Your task to perform on an android device: Open eBay Image 0: 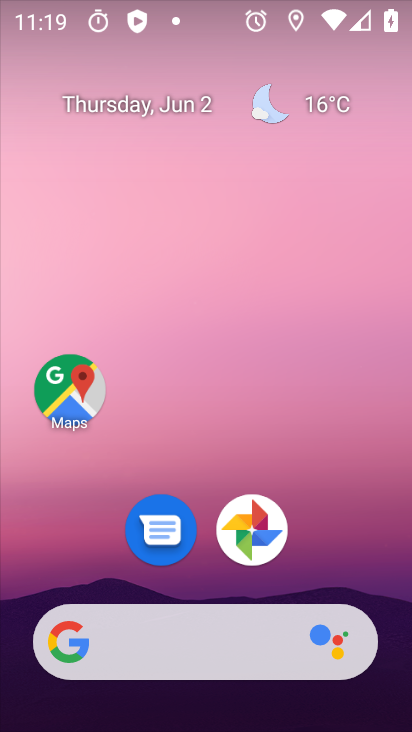
Step 0: drag from (250, 637) to (86, 325)
Your task to perform on an android device: Open eBay Image 1: 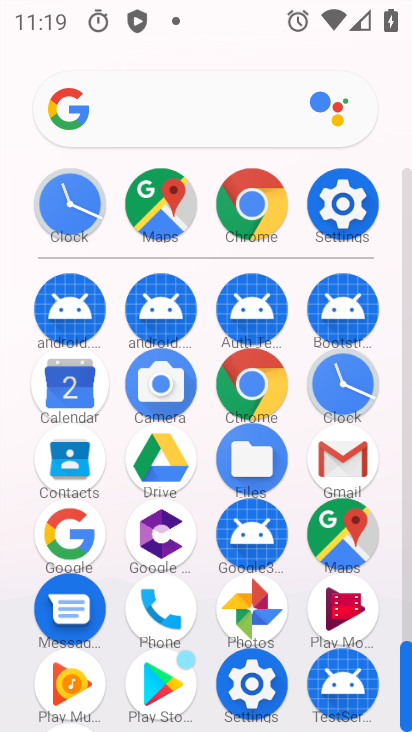
Step 1: click (251, 201)
Your task to perform on an android device: Open eBay Image 2: 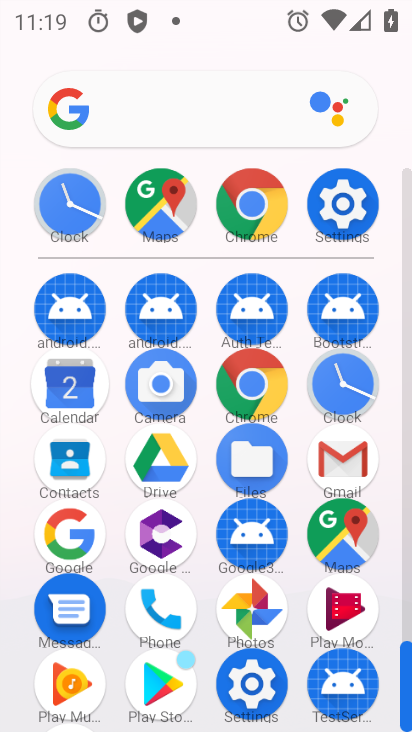
Step 2: click (252, 200)
Your task to perform on an android device: Open eBay Image 3: 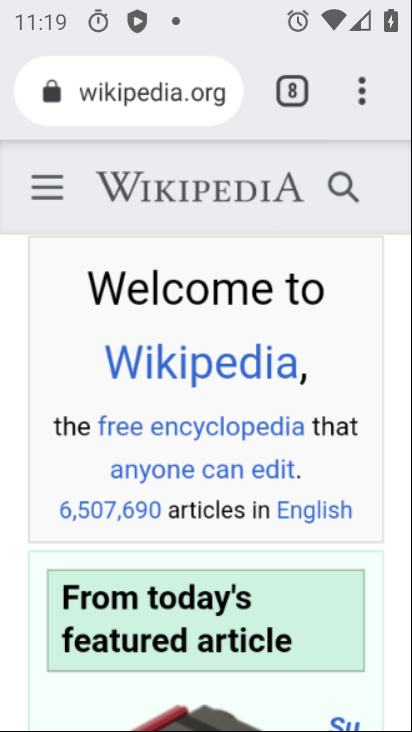
Step 3: click (250, 212)
Your task to perform on an android device: Open eBay Image 4: 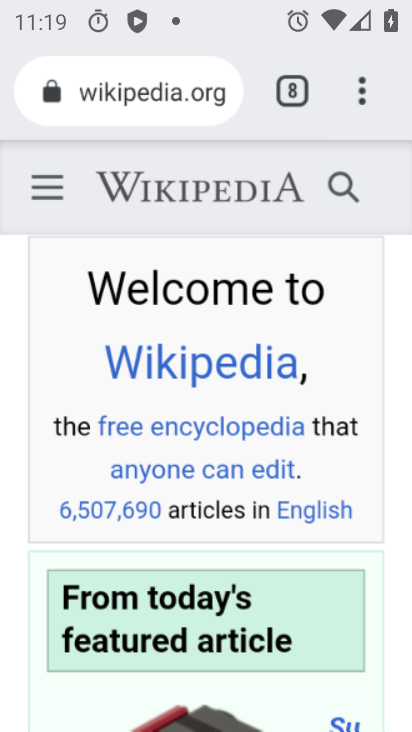
Step 4: click (250, 212)
Your task to perform on an android device: Open eBay Image 5: 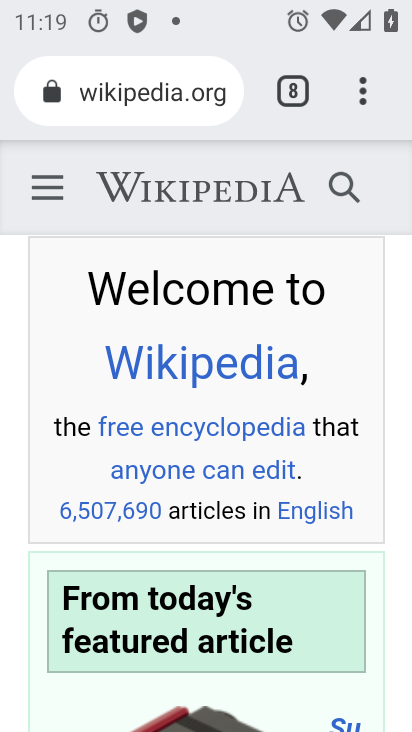
Step 5: click (358, 97)
Your task to perform on an android device: Open eBay Image 6: 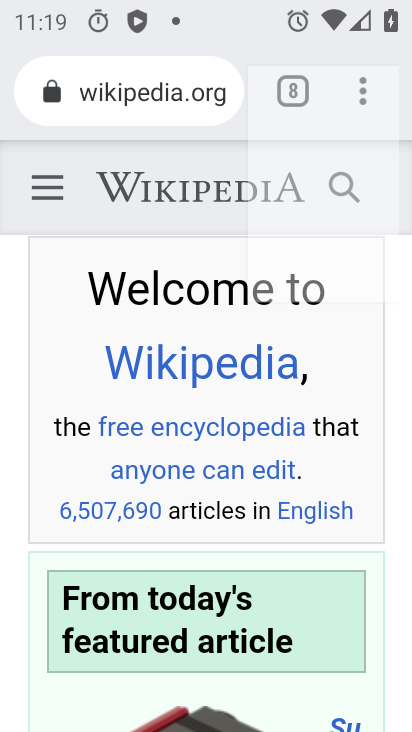
Step 6: click (358, 97)
Your task to perform on an android device: Open eBay Image 7: 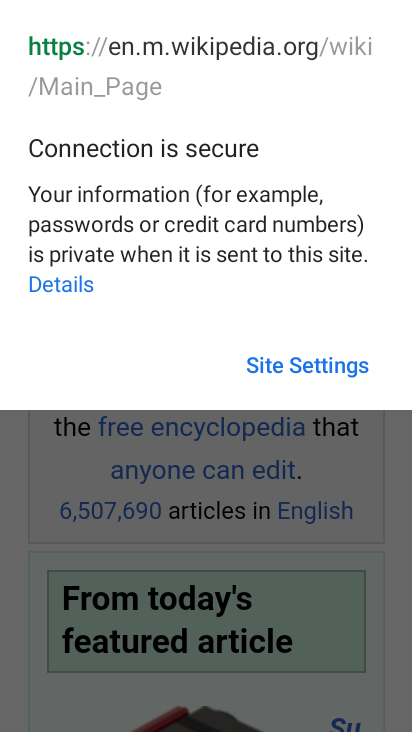
Step 7: click (369, 468)
Your task to perform on an android device: Open eBay Image 8: 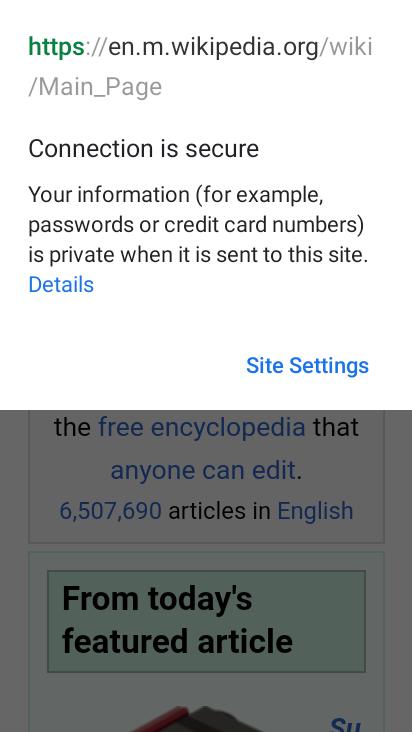
Step 8: click (380, 454)
Your task to perform on an android device: Open eBay Image 9: 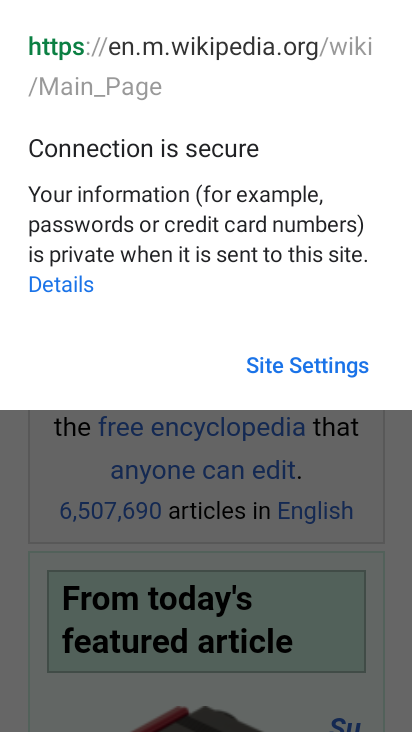
Step 9: click (383, 454)
Your task to perform on an android device: Open eBay Image 10: 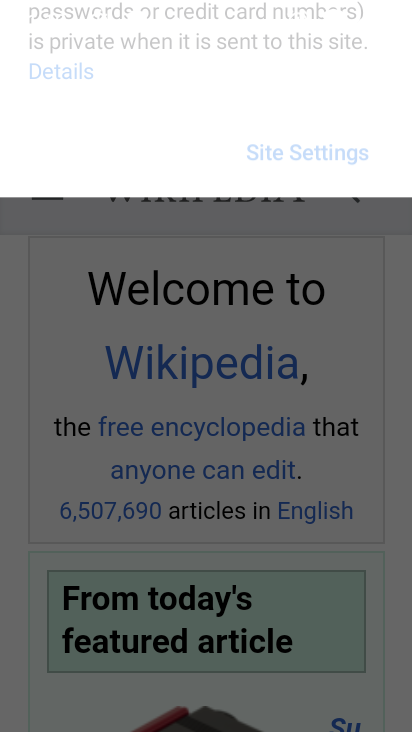
Step 10: click (384, 455)
Your task to perform on an android device: Open eBay Image 11: 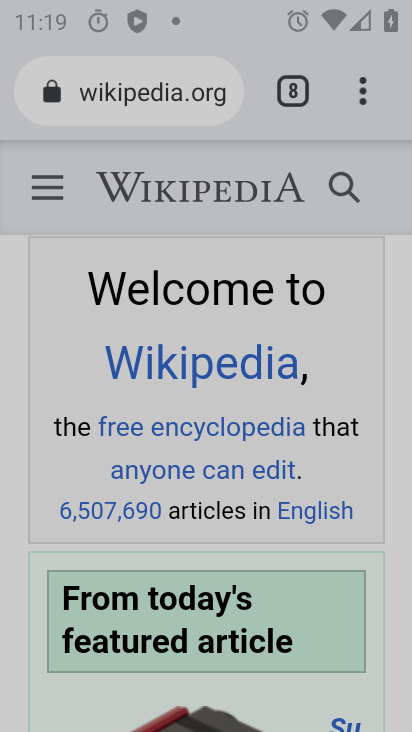
Step 11: click (384, 455)
Your task to perform on an android device: Open eBay Image 12: 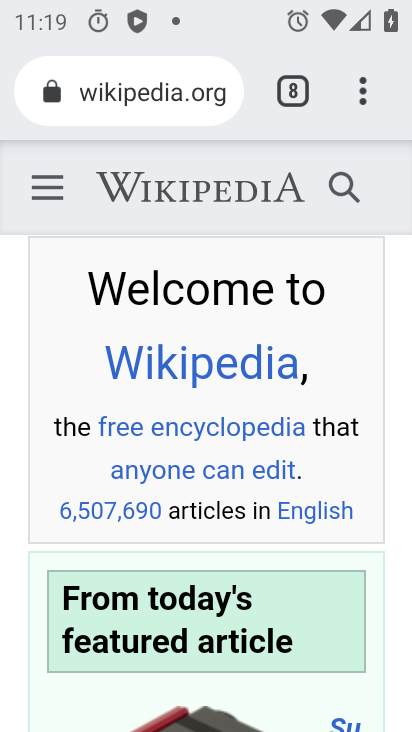
Step 12: drag from (359, 92) to (54, 211)
Your task to perform on an android device: Open eBay Image 13: 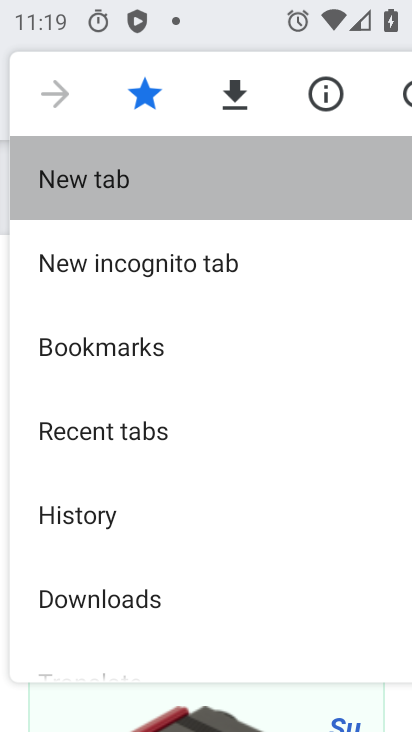
Step 13: click (54, 209)
Your task to perform on an android device: Open eBay Image 14: 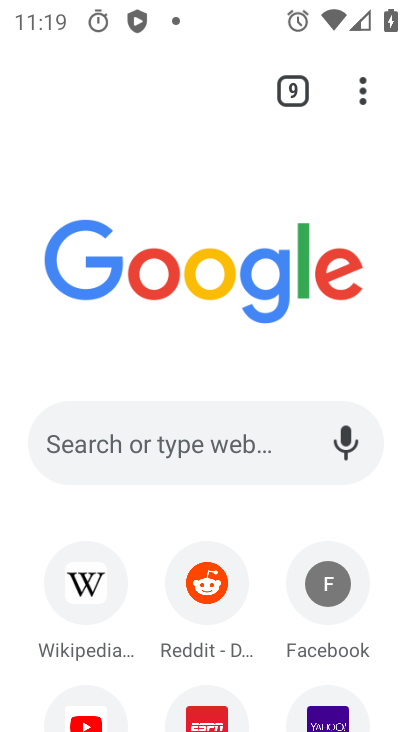
Step 14: drag from (212, 425) to (186, 238)
Your task to perform on an android device: Open eBay Image 15: 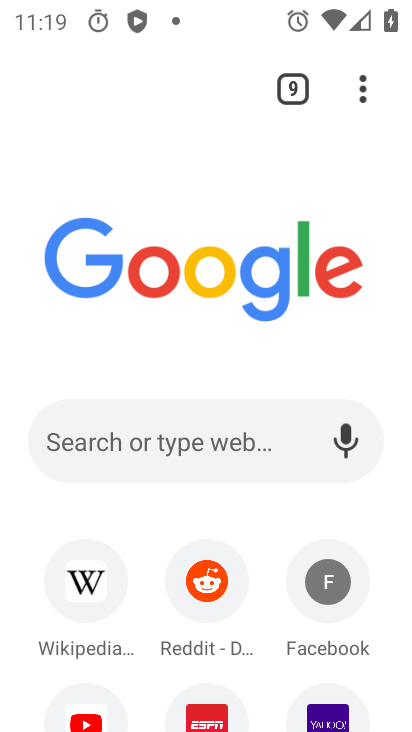
Step 15: drag from (252, 404) to (222, 194)
Your task to perform on an android device: Open eBay Image 16: 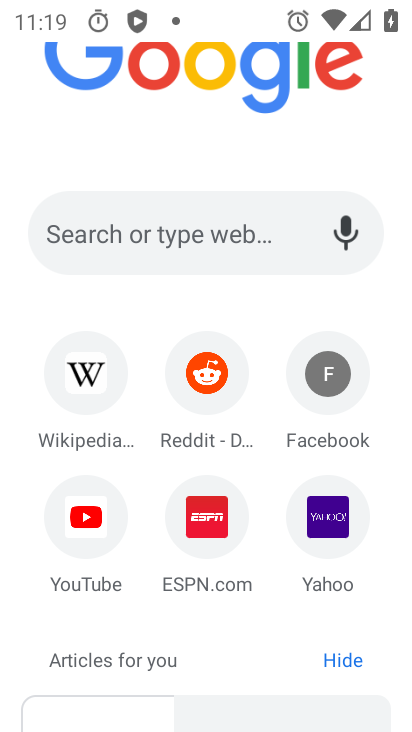
Step 16: drag from (260, 406) to (227, 101)
Your task to perform on an android device: Open eBay Image 17: 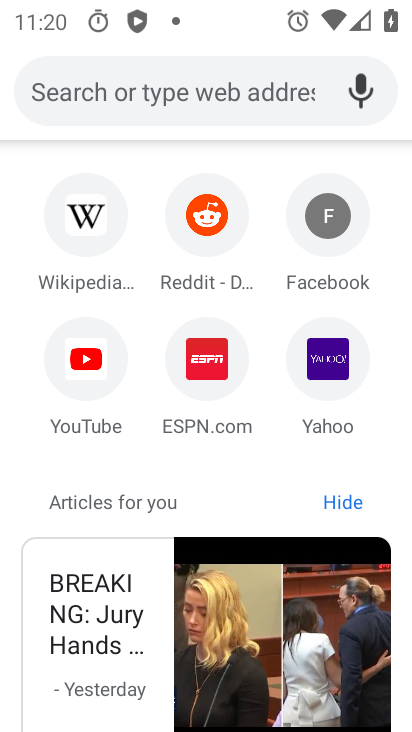
Step 17: drag from (166, 187) to (168, 526)
Your task to perform on an android device: Open eBay Image 18: 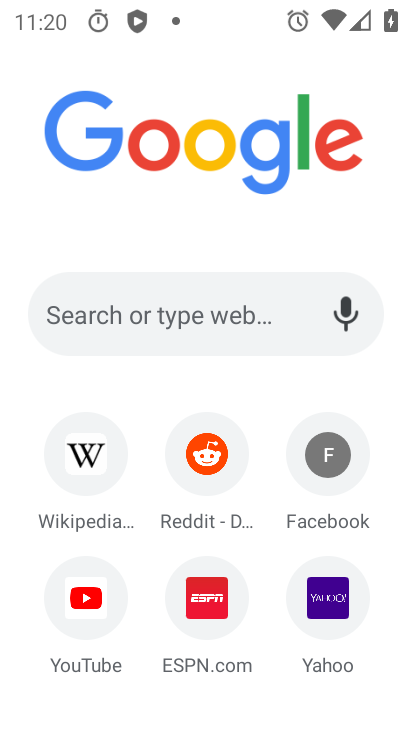
Step 18: click (54, 290)
Your task to perform on an android device: Open eBay Image 19: 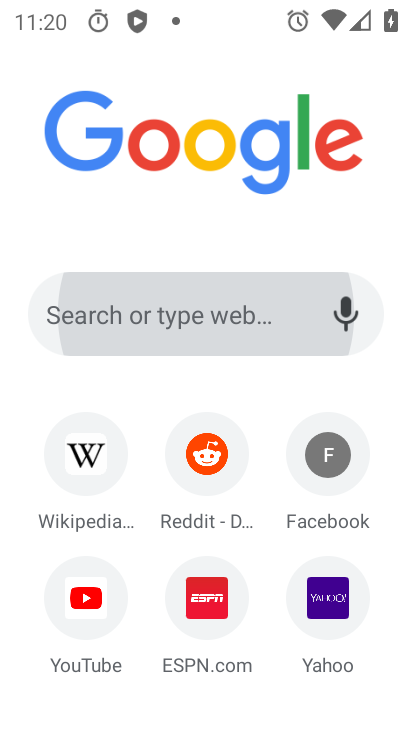
Step 19: click (80, 314)
Your task to perform on an android device: Open eBay Image 20: 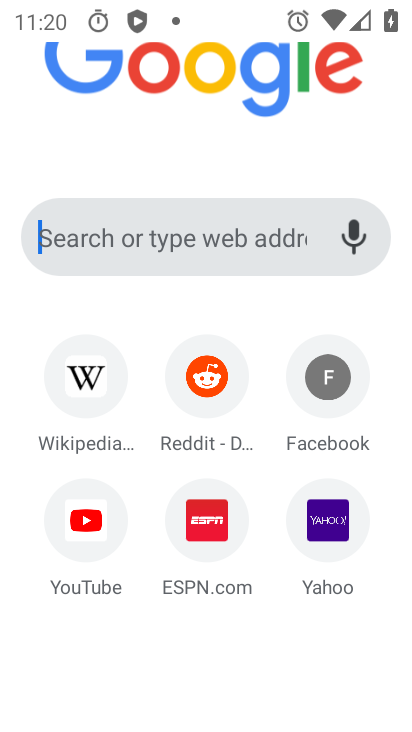
Step 20: click (80, 314)
Your task to perform on an android device: Open eBay Image 21: 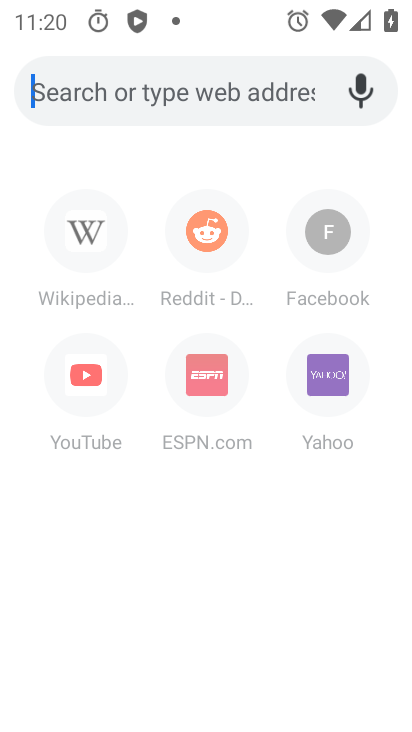
Step 21: click (80, 314)
Your task to perform on an android device: Open eBay Image 22: 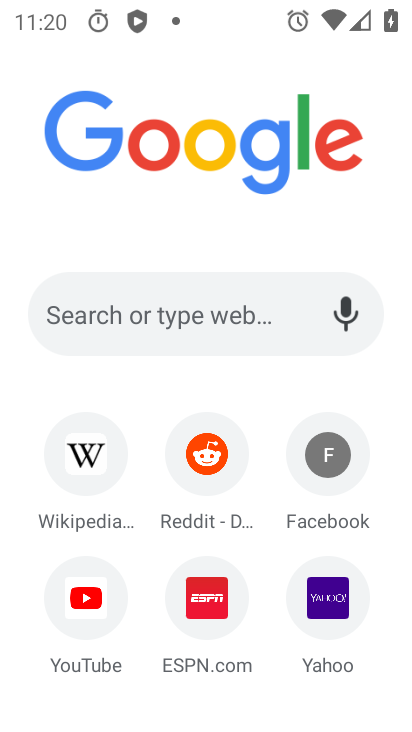
Step 22: type "ebay.com"
Your task to perform on an android device: Open eBay Image 23: 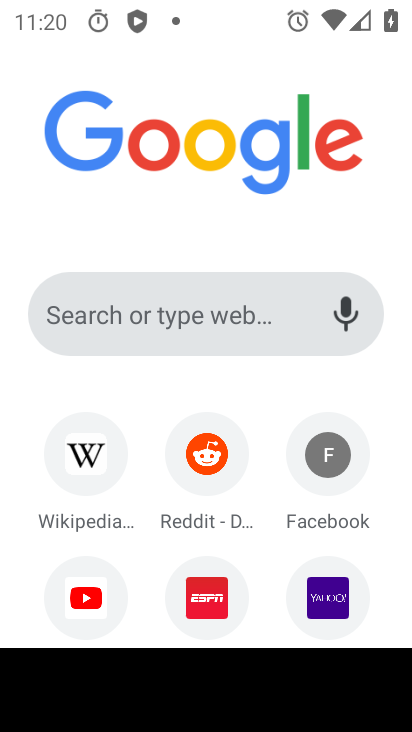
Step 23: click (95, 310)
Your task to perform on an android device: Open eBay Image 24: 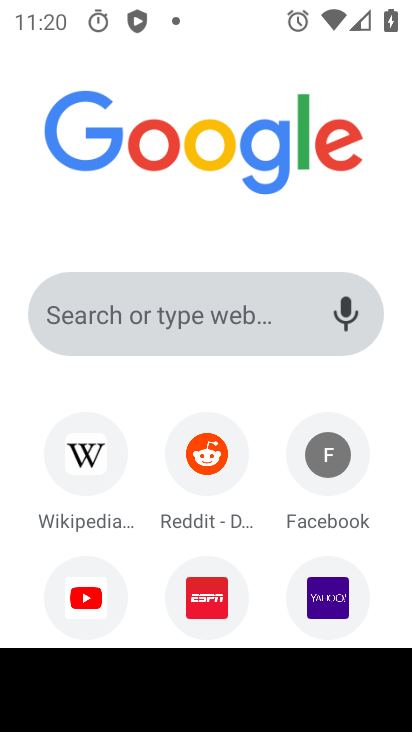
Step 24: click (92, 313)
Your task to perform on an android device: Open eBay Image 25: 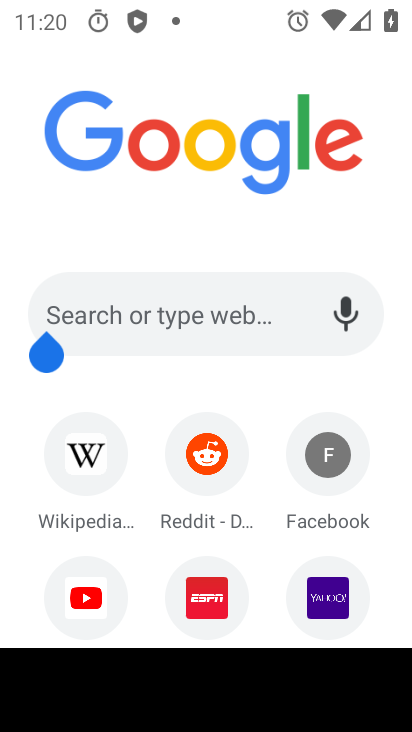
Step 25: click (91, 313)
Your task to perform on an android device: Open eBay Image 26: 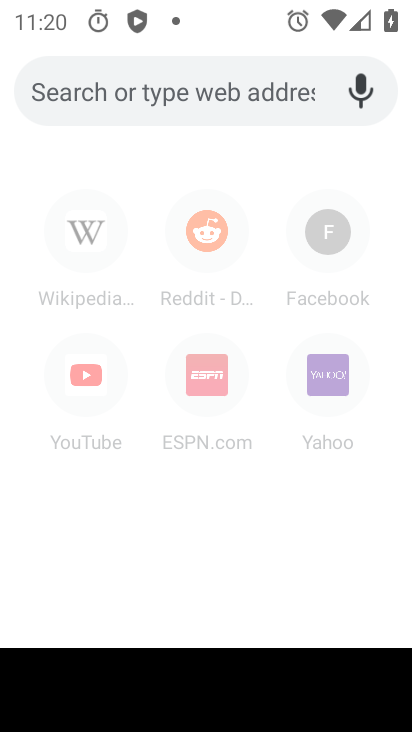
Step 26: type "ebay.com"
Your task to perform on an android device: Open eBay Image 27: 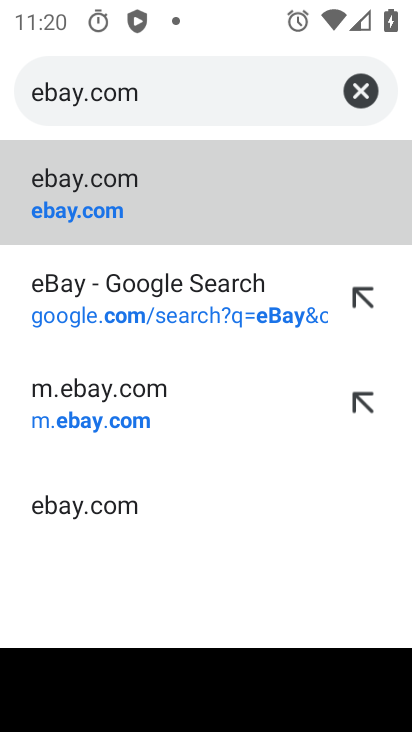
Step 27: click (52, 191)
Your task to perform on an android device: Open eBay Image 28: 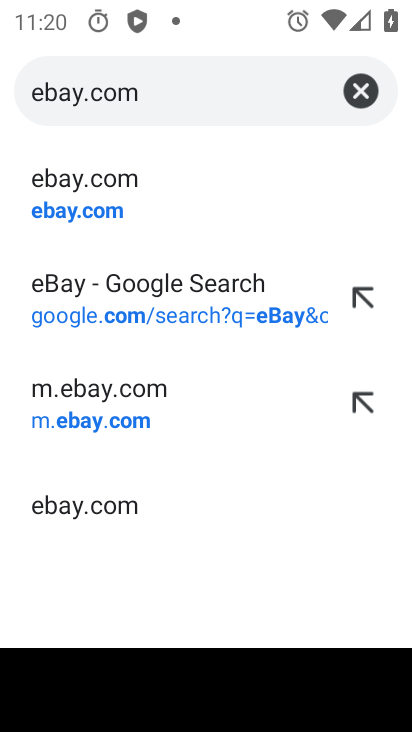
Step 28: task complete